Your task to perform on an android device: Search for pizza restaurants on Maps Image 0: 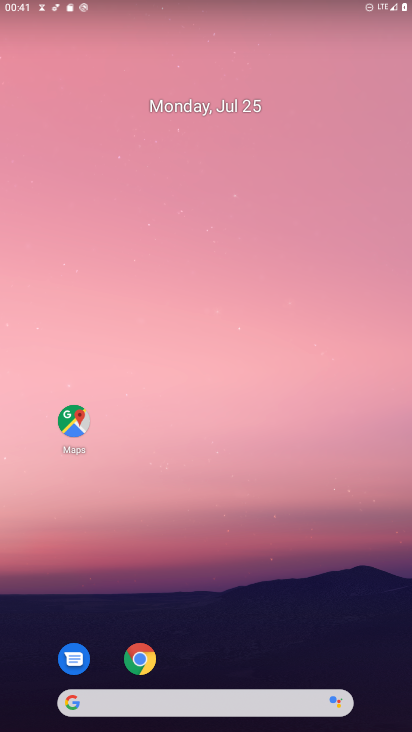
Step 0: drag from (207, 630) to (219, 197)
Your task to perform on an android device: Search for pizza restaurants on Maps Image 1: 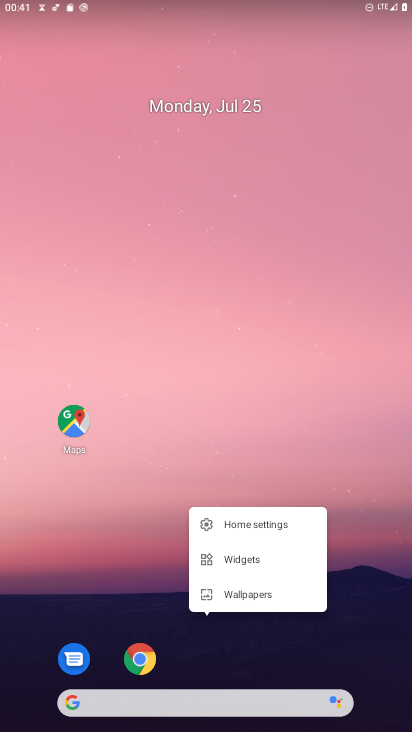
Step 1: click (257, 392)
Your task to perform on an android device: Search for pizza restaurants on Maps Image 2: 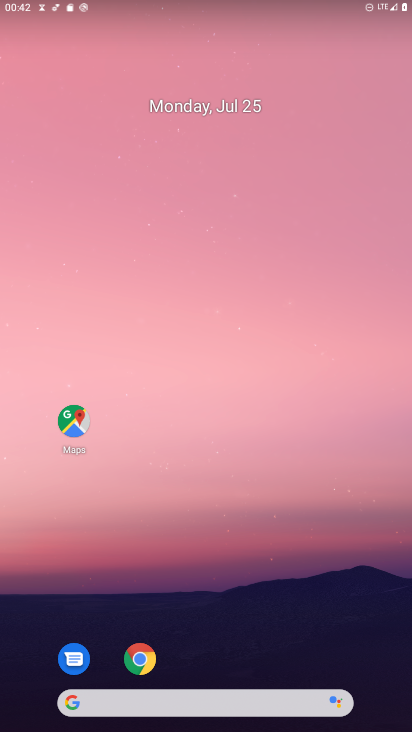
Step 2: drag from (222, 651) to (366, 91)
Your task to perform on an android device: Search for pizza restaurants on Maps Image 3: 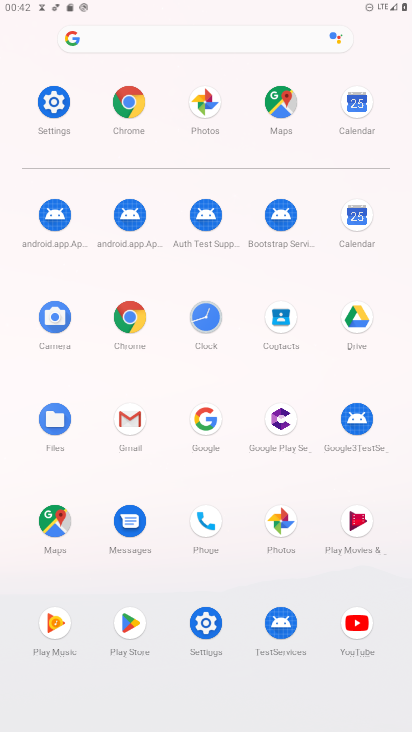
Step 3: click (54, 520)
Your task to perform on an android device: Search for pizza restaurants on Maps Image 4: 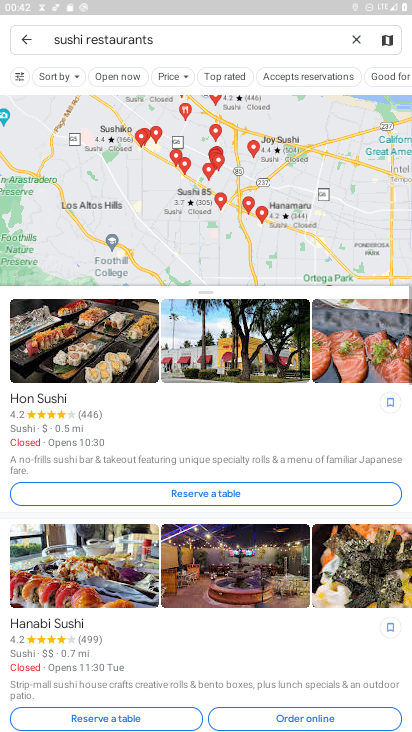
Step 4: click (356, 32)
Your task to perform on an android device: Search for pizza restaurants on Maps Image 5: 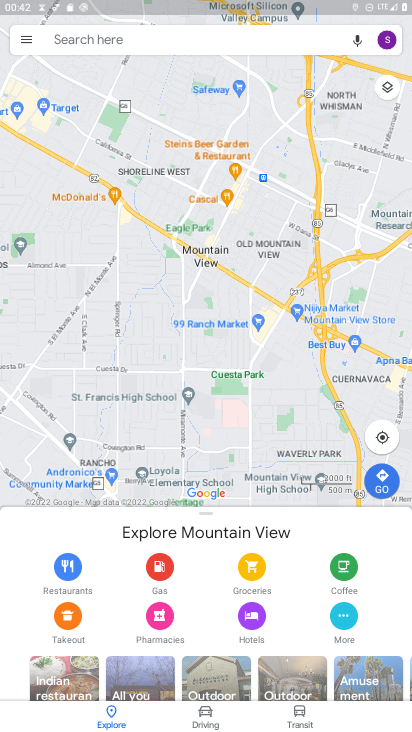
Step 5: click (208, 33)
Your task to perform on an android device: Search for pizza restaurants on Maps Image 6: 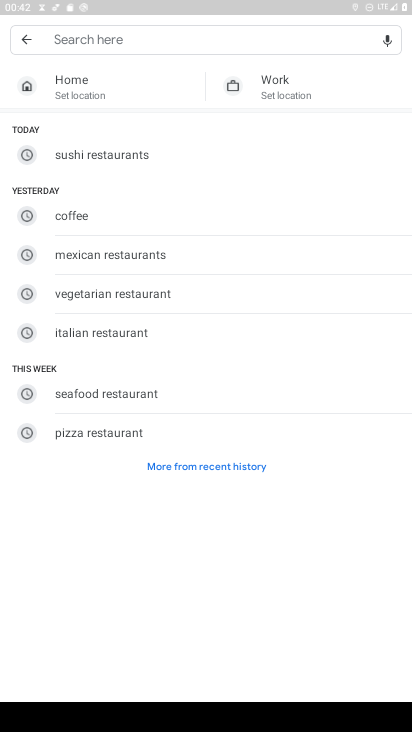
Step 6: click (142, 426)
Your task to perform on an android device: Search for pizza restaurants on Maps Image 7: 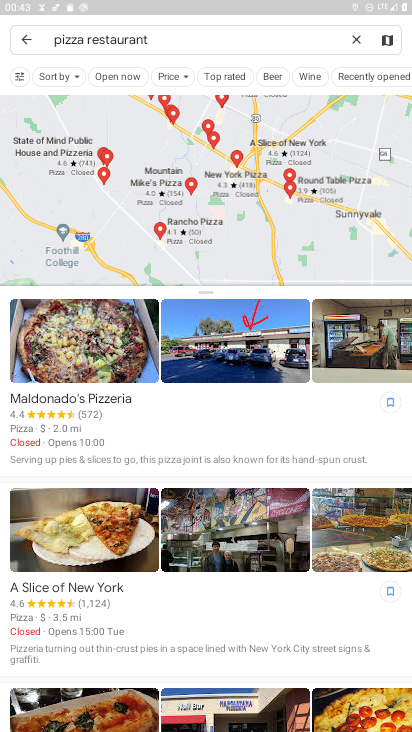
Step 7: task complete